Your task to perform on an android device: toggle priority inbox in the gmail app Image 0: 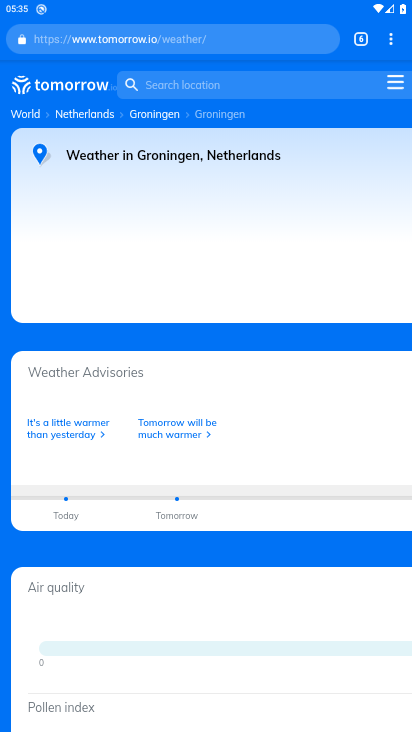
Step 0: press home button
Your task to perform on an android device: toggle priority inbox in the gmail app Image 1: 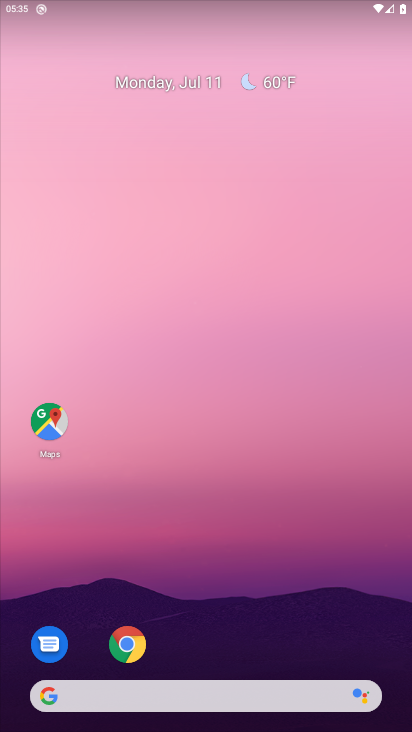
Step 1: drag from (145, 671) to (199, 381)
Your task to perform on an android device: toggle priority inbox in the gmail app Image 2: 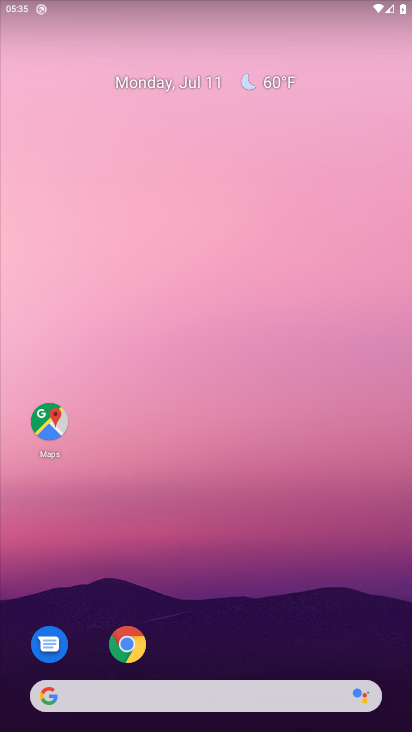
Step 2: drag from (245, 658) to (244, 266)
Your task to perform on an android device: toggle priority inbox in the gmail app Image 3: 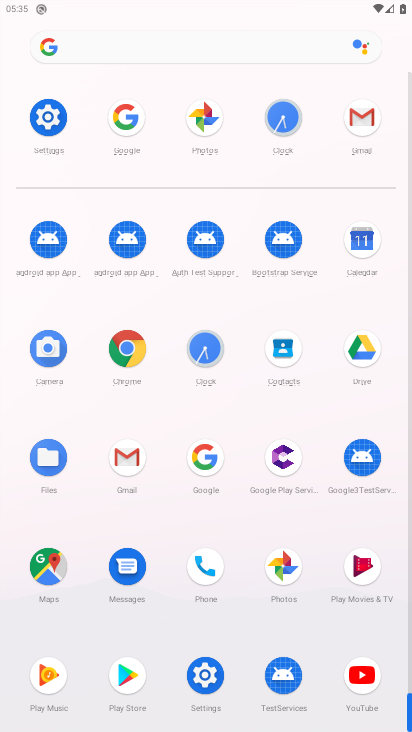
Step 3: click (113, 465)
Your task to perform on an android device: toggle priority inbox in the gmail app Image 4: 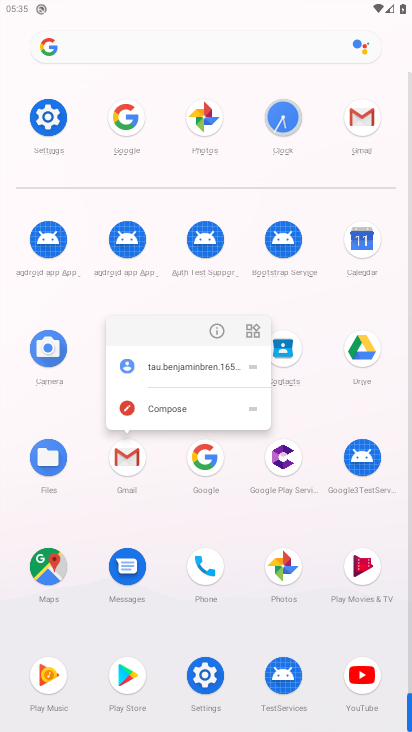
Step 4: click (133, 458)
Your task to perform on an android device: toggle priority inbox in the gmail app Image 5: 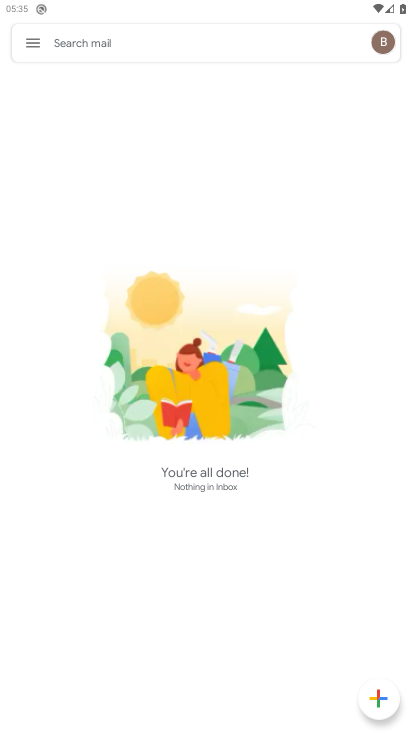
Step 5: click (27, 42)
Your task to perform on an android device: toggle priority inbox in the gmail app Image 6: 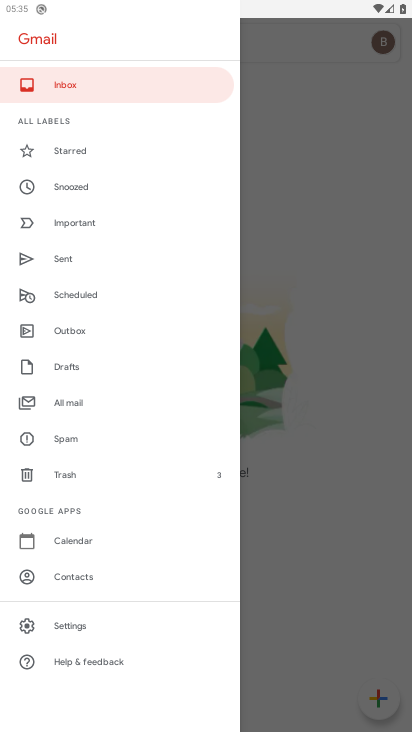
Step 6: click (82, 630)
Your task to perform on an android device: toggle priority inbox in the gmail app Image 7: 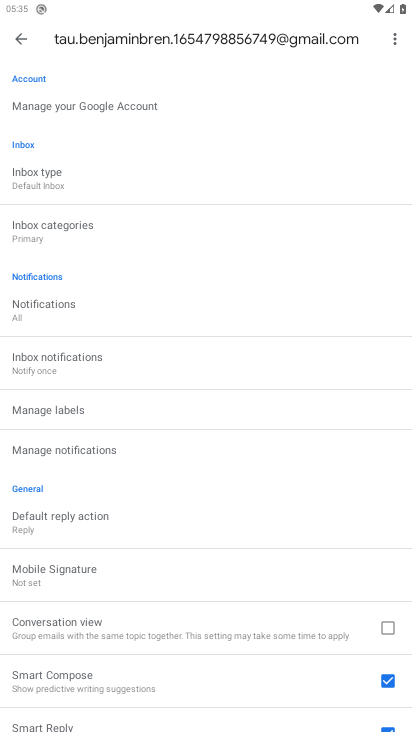
Step 7: click (49, 179)
Your task to perform on an android device: toggle priority inbox in the gmail app Image 8: 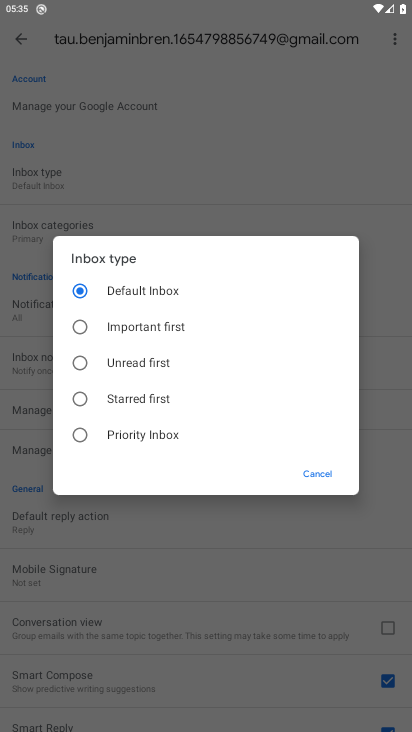
Step 8: click (149, 438)
Your task to perform on an android device: toggle priority inbox in the gmail app Image 9: 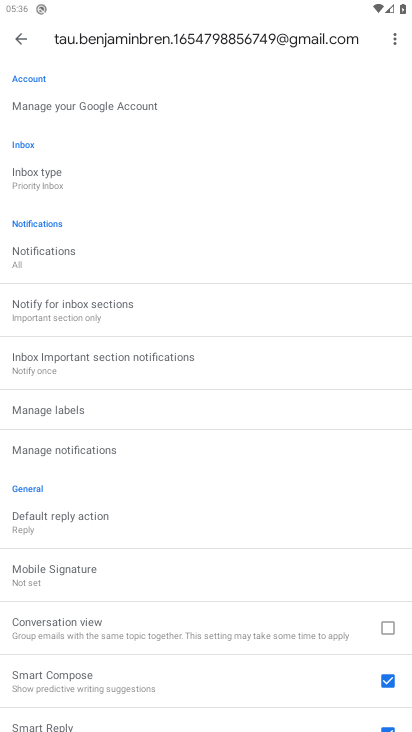
Step 9: task complete